Your task to perform on an android device: Open calendar and show me the third week of next month Image 0: 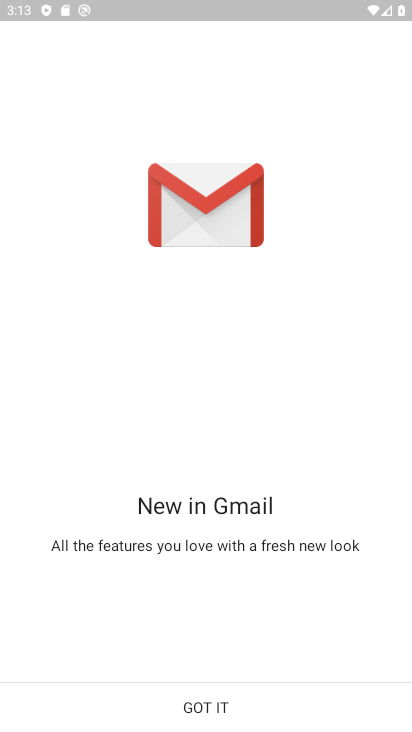
Step 0: press home button
Your task to perform on an android device: Open calendar and show me the third week of next month Image 1: 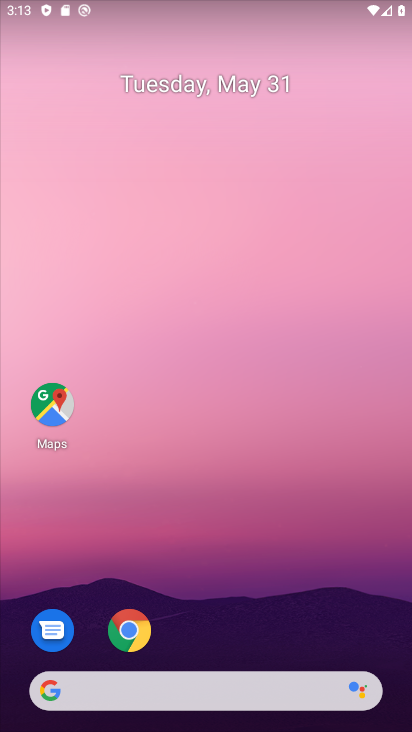
Step 1: drag from (137, 645) to (256, 96)
Your task to perform on an android device: Open calendar and show me the third week of next month Image 2: 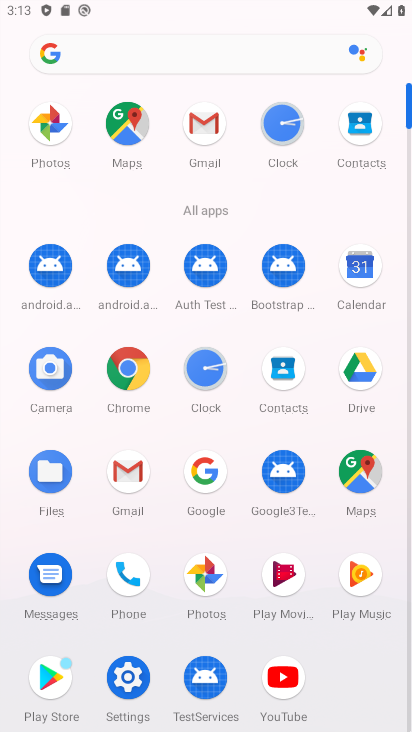
Step 2: click (362, 275)
Your task to perform on an android device: Open calendar and show me the third week of next month Image 3: 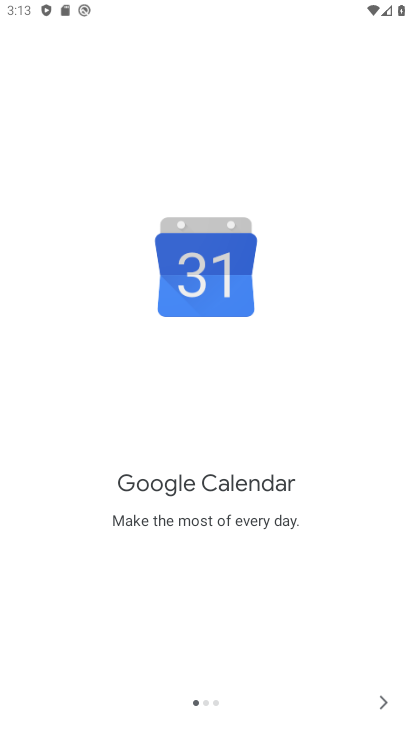
Step 3: click (380, 697)
Your task to perform on an android device: Open calendar and show me the third week of next month Image 4: 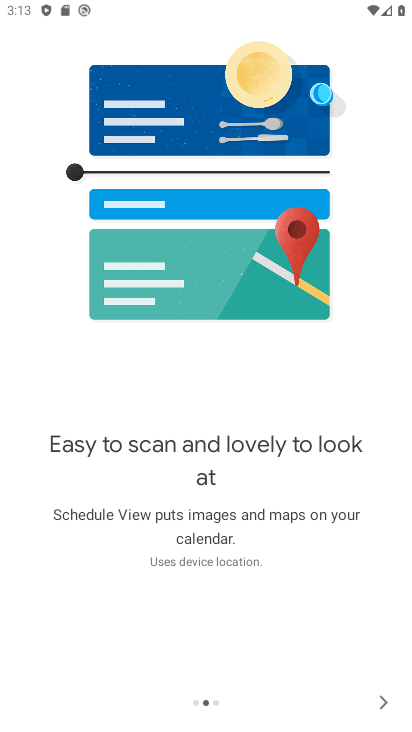
Step 4: click (380, 698)
Your task to perform on an android device: Open calendar and show me the third week of next month Image 5: 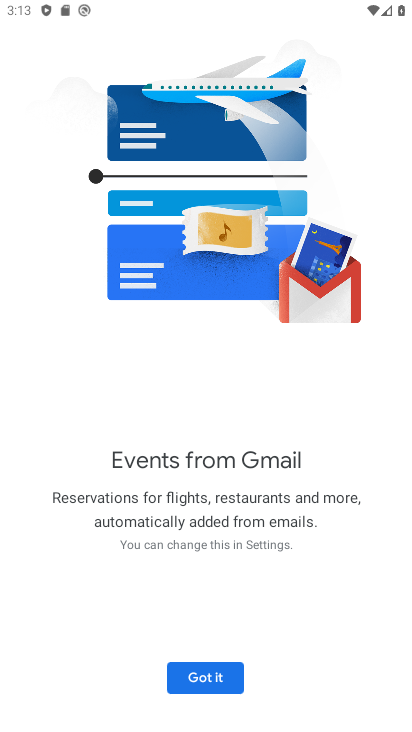
Step 5: click (200, 687)
Your task to perform on an android device: Open calendar and show me the third week of next month Image 6: 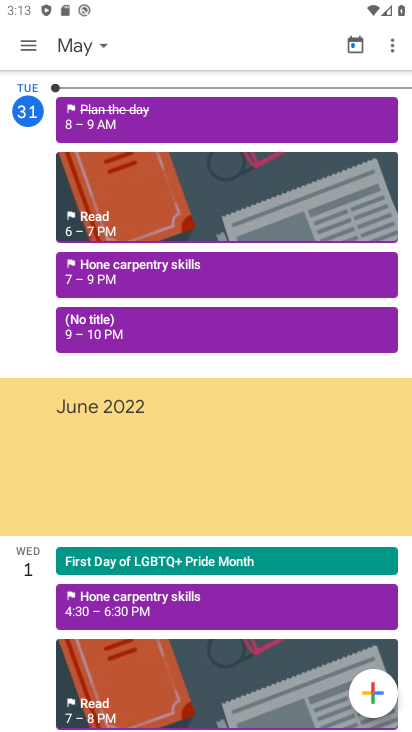
Step 6: click (68, 53)
Your task to perform on an android device: Open calendar and show me the third week of next month Image 7: 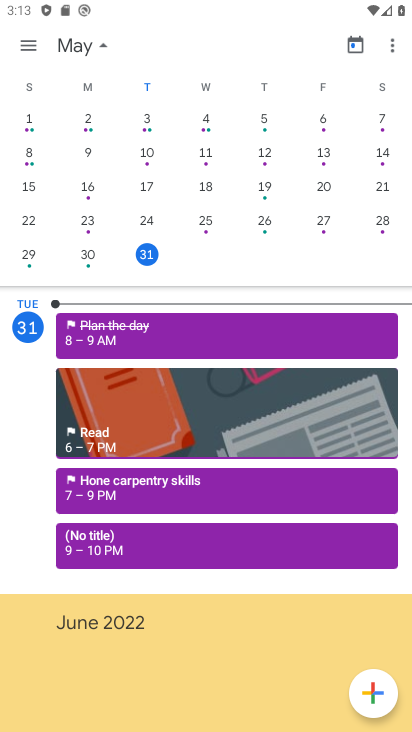
Step 7: drag from (389, 255) to (12, 203)
Your task to perform on an android device: Open calendar and show me the third week of next month Image 8: 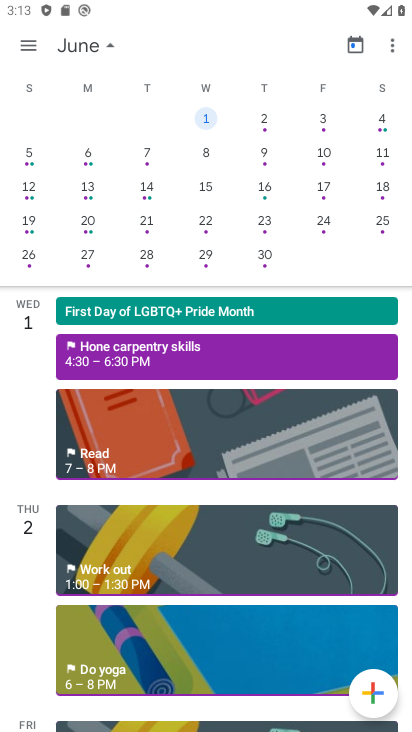
Step 8: click (25, 219)
Your task to perform on an android device: Open calendar and show me the third week of next month Image 9: 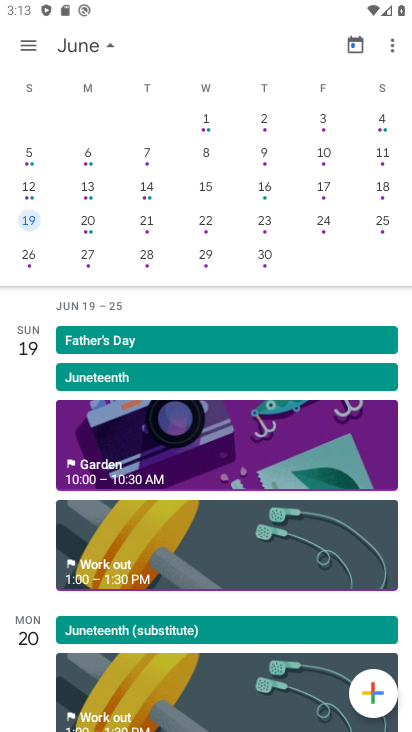
Step 9: click (35, 41)
Your task to perform on an android device: Open calendar and show me the third week of next month Image 10: 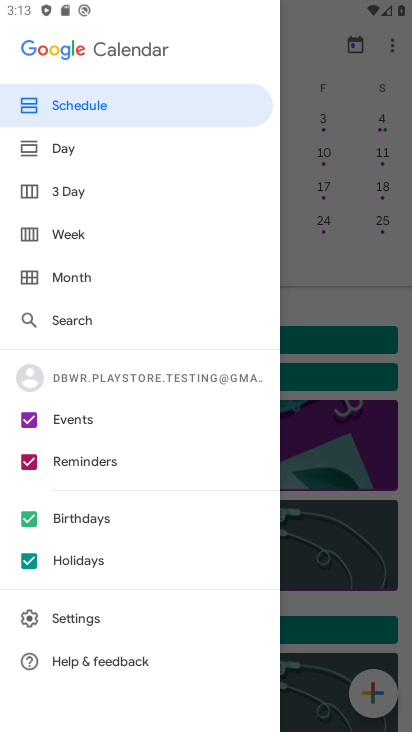
Step 10: click (120, 237)
Your task to perform on an android device: Open calendar and show me the third week of next month Image 11: 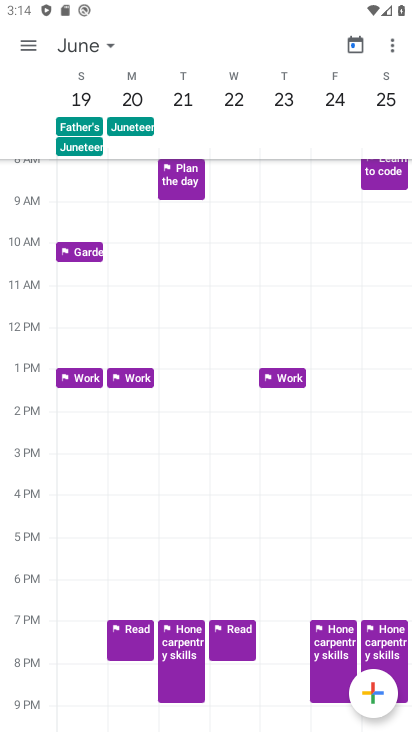
Step 11: task complete